Your task to perform on an android device: set the stopwatch Image 0: 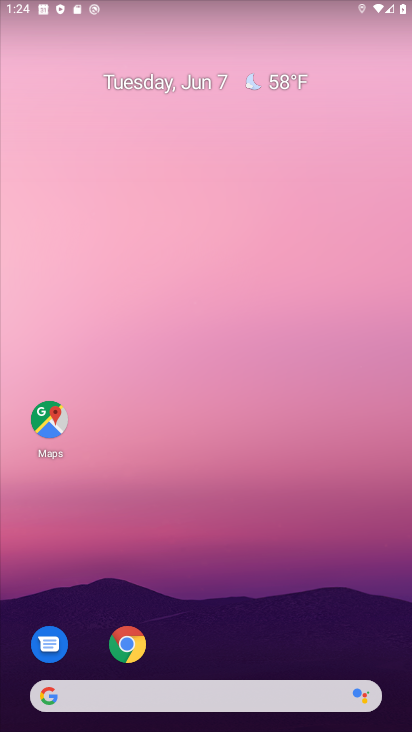
Step 0: drag from (206, 731) to (47, 118)
Your task to perform on an android device: set the stopwatch Image 1: 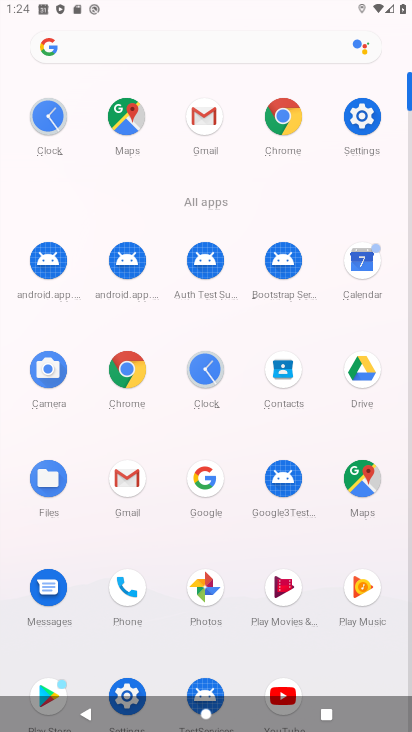
Step 1: click (220, 373)
Your task to perform on an android device: set the stopwatch Image 2: 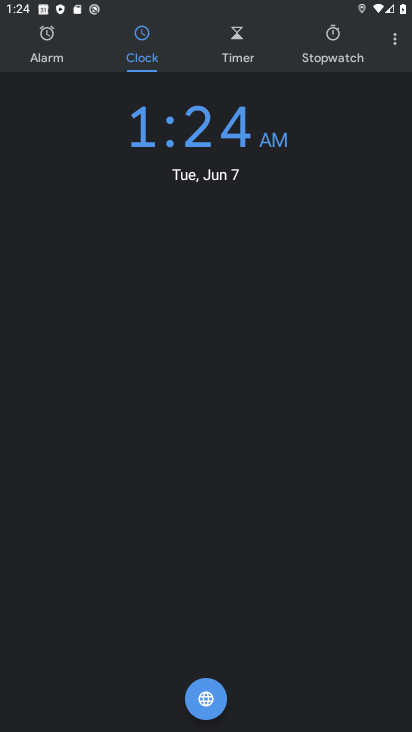
Step 2: click (335, 44)
Your task to perform on an android device: set the stopwatch Image 3: 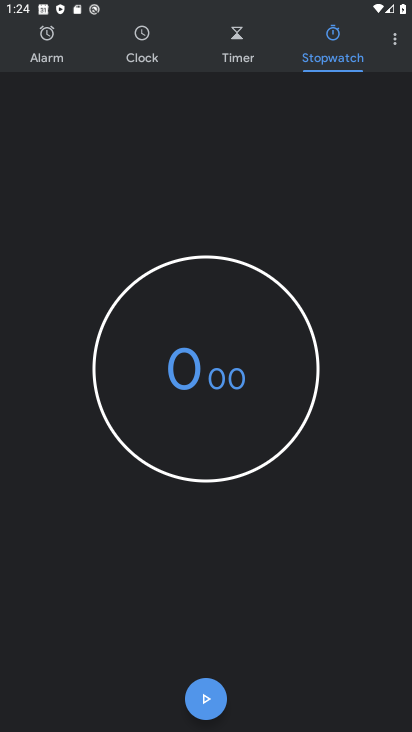
Step 3: click (209, 706)
Your task to perform on an android device: set the stopwatch Image 4: 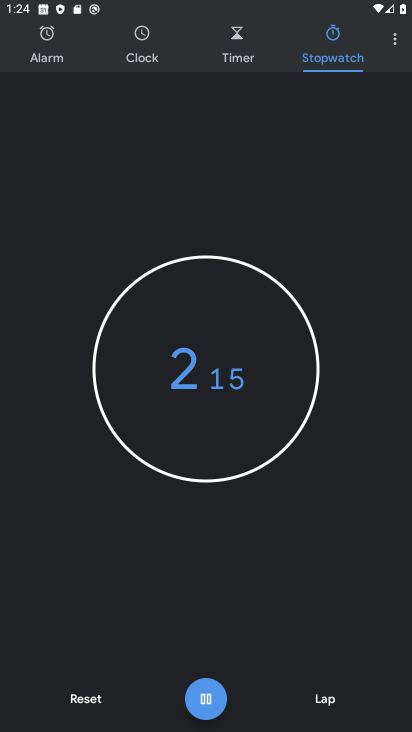
Step 4: click (209, 706)
Your task to perform on an android device: set the stopwatch Image 5: 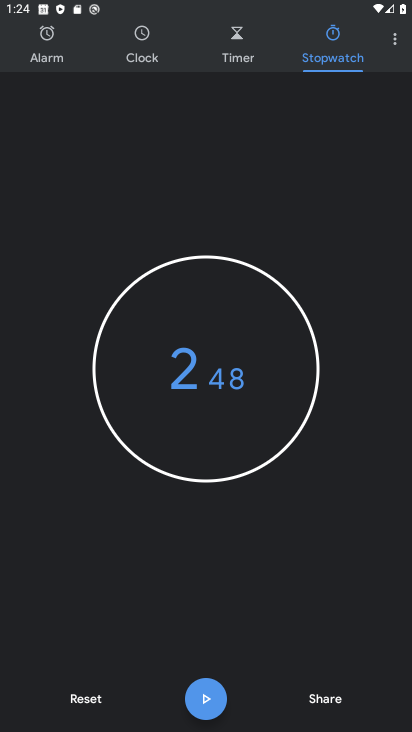
Step 5: click (104, 696)
Your task to perform on an android device: set the stopwatch Image 6: 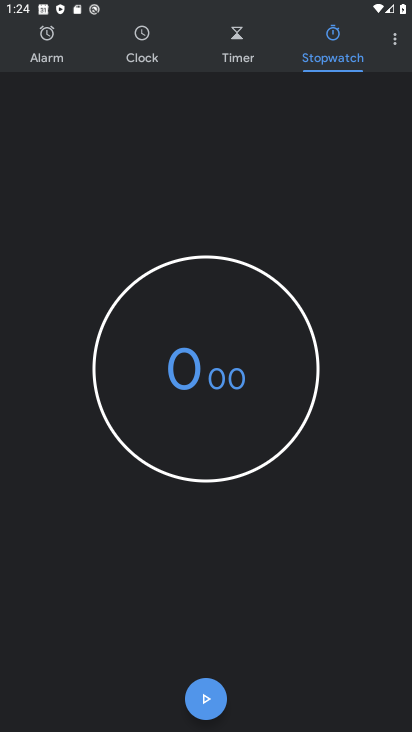
Step 6: task complete